Your task to perform on an android device: set the stopwatch Image 0: 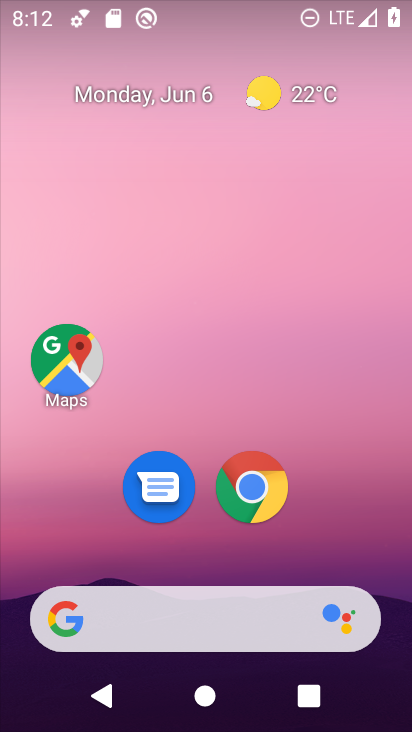
Step 0: drag from (393, 623) to (305, 63)
Your task to perform on an android device: set the stopwatch Image 1: 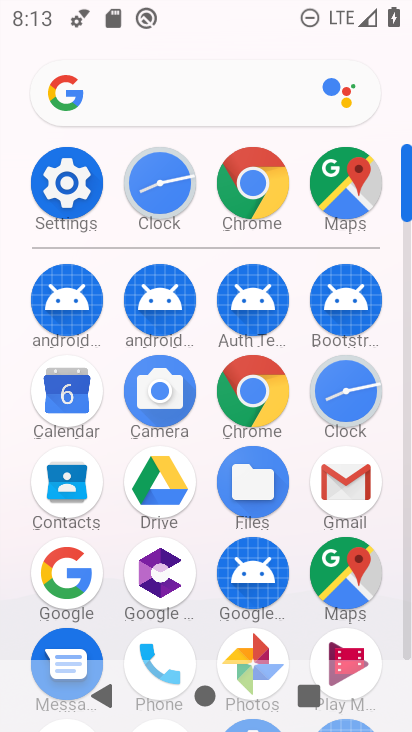
Step 1: click (354, 388)
Your task to perform on an android device: set the stopwatch Image 2: 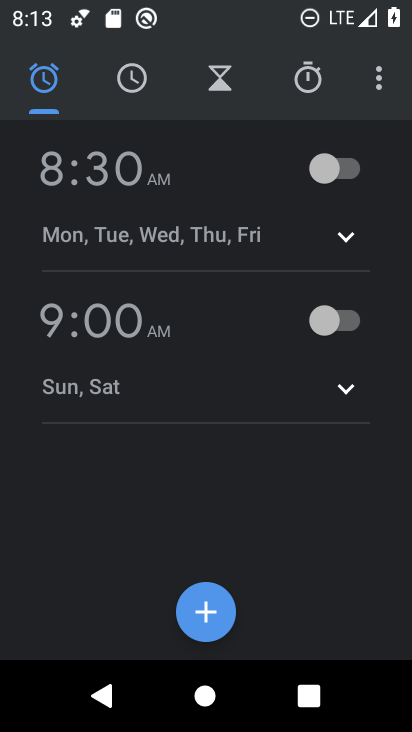
Step 2: click (312, 74)
Your task to perform on an android device: set the stopwatch Image 3: 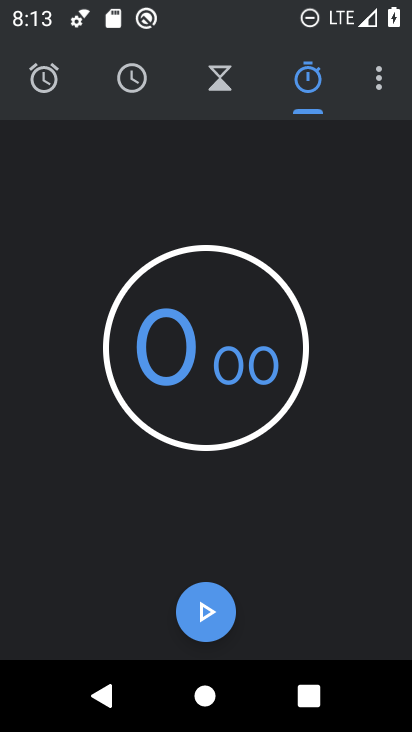
Step 3: click (197, 615)
Your task to perform on an android device: set the stopwatch Image 4: 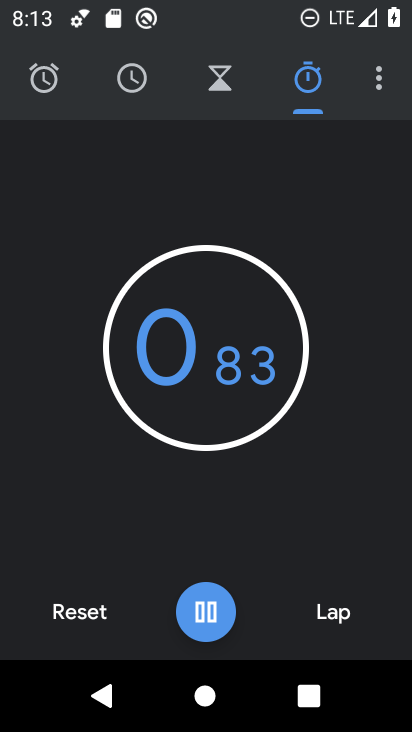
Step 4: click (197, 615)
Your task to perform on an android device: set the stopwatch Image 5: 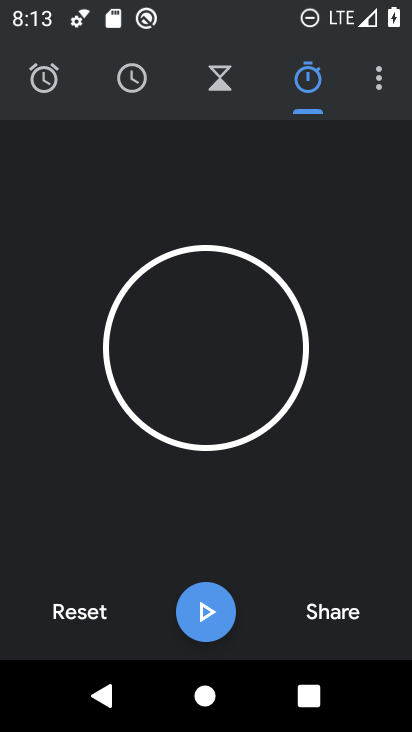
Step 5: task complete